Your task to perform on an android device: Find coffee shops on Maps Image 0: 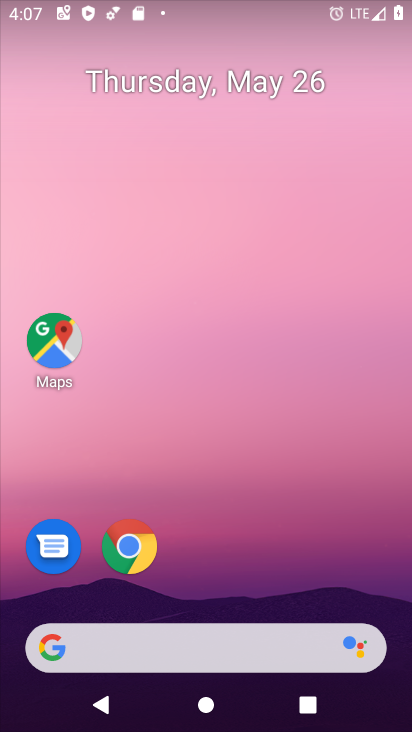
Step 0: click (53, 334)
Your task to perform on an android device: Find coffee shops on Maps Image 1: 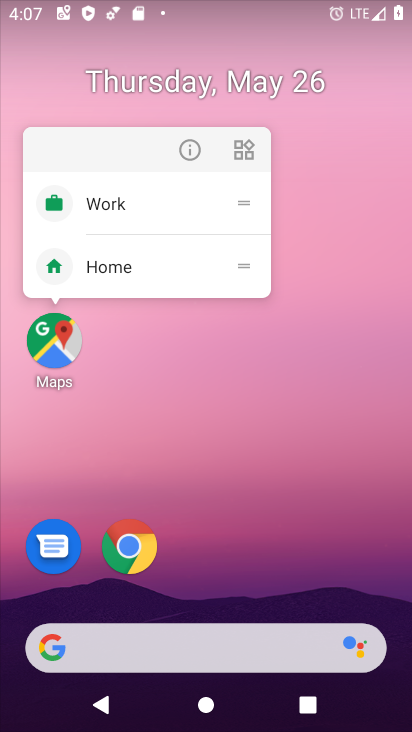
Step 1: click (54, 349)
Your task to perform on an android device: Find coffee shops on Maps Image 2: 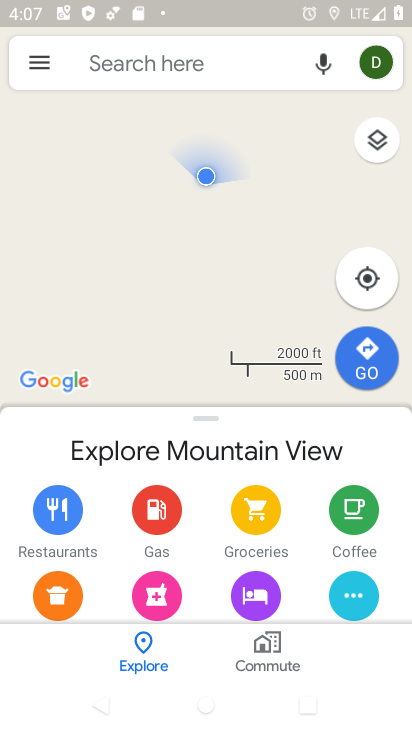
Step 2: click (153, 46)
Your task to perform on an android device: Find coffee shops on Maps Image 3: 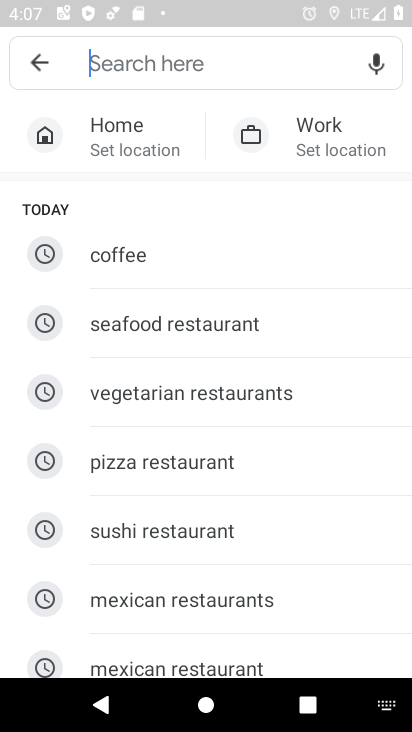
Step 3: type "coffee shops"
Your task to perform on an android device: Find coffee shops on Maps Image 4: 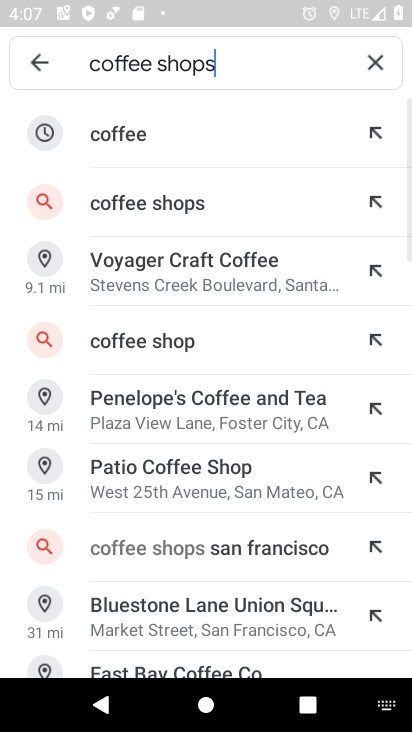
Step 4: click (192, 196)
Your task to perform on an android device: Find coffee shops on Maps Image 5: 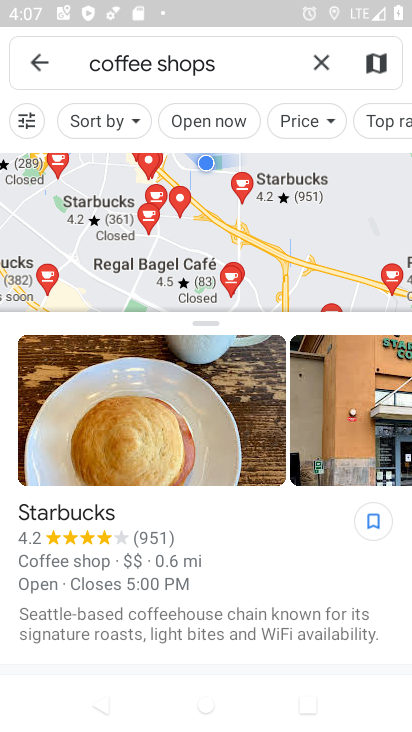
Step 5: task complete